Your task to perform on an android device: Open Google Maps and go to "Timeline" Image 0: 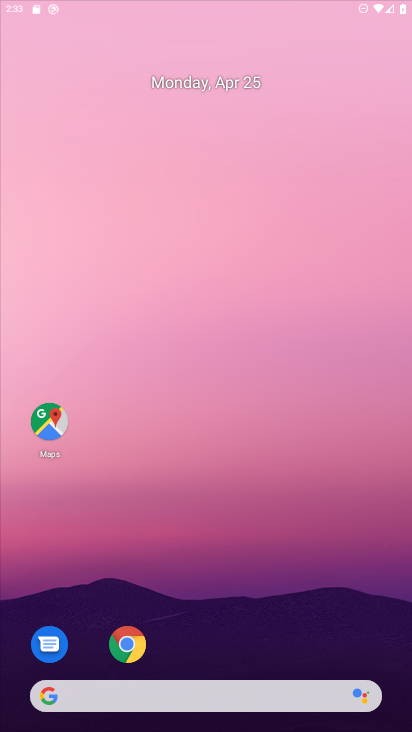
Step 0: drag from (277, 625) to (244, 223)
Your task to perform on an android device: Open Google Maps and go to "Timeline" Image 1: 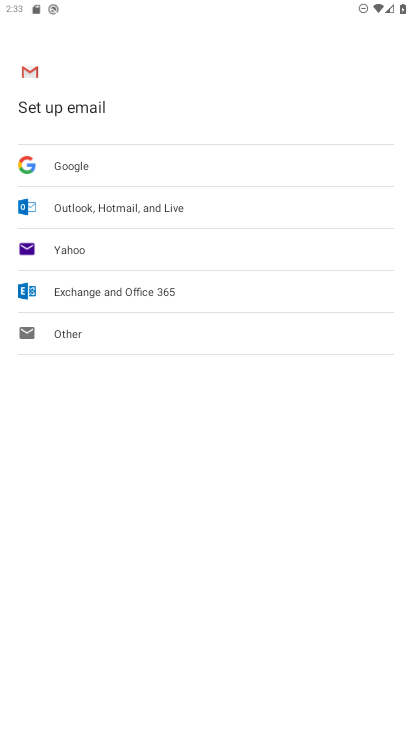
Step 1: press home button
Your task to perform on an android device: Open Google Maps and go to "Timeline" Image 2: 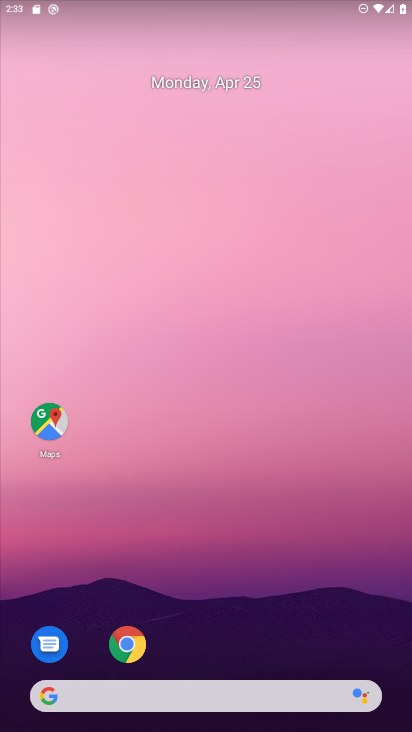
Step 2: drag from (257, 629) to (199, 409)
Your task to perform on an android device: Open Google Maps and go to "Timeline" Image 3: 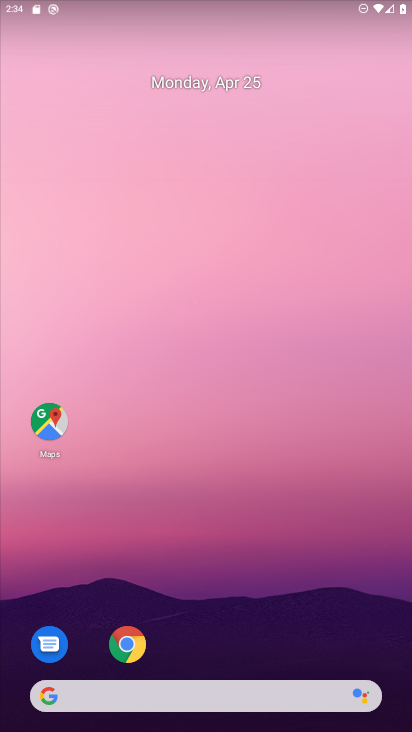
Step 3: drag from (225, 671) to (154, 373)
Your task to perform on an android device: Open Google Maps and go to "Timeline" Image 4: 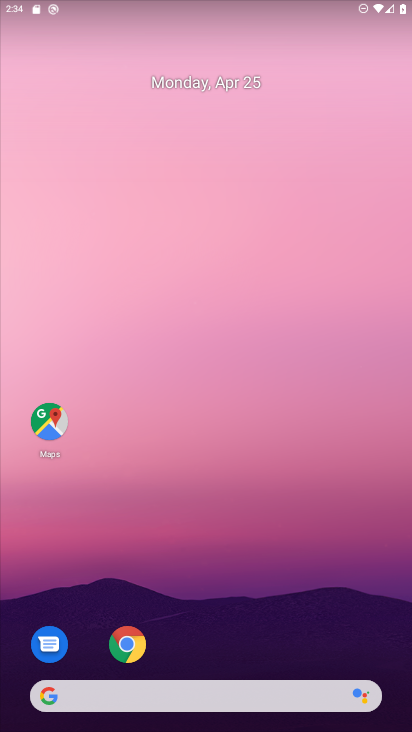
Step 4: click (56, 427)
Your task to perform on an android device: Open Google Maps and go to "Timeline" Image 5: 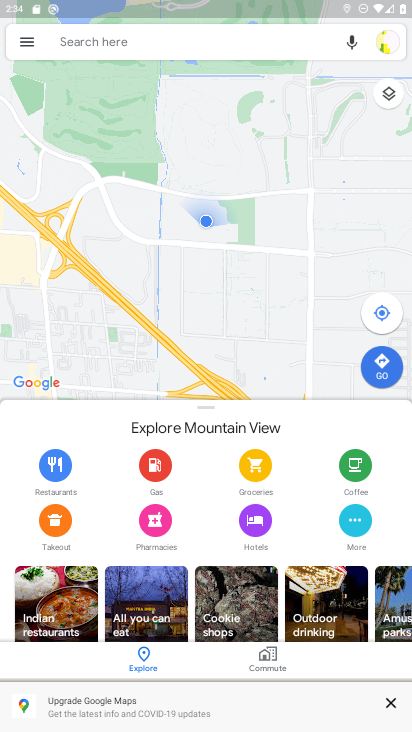
Step 5: click (28, 39)
Your task to perform on an android device: Open Google Maps and go to "Timeline" Image 6: 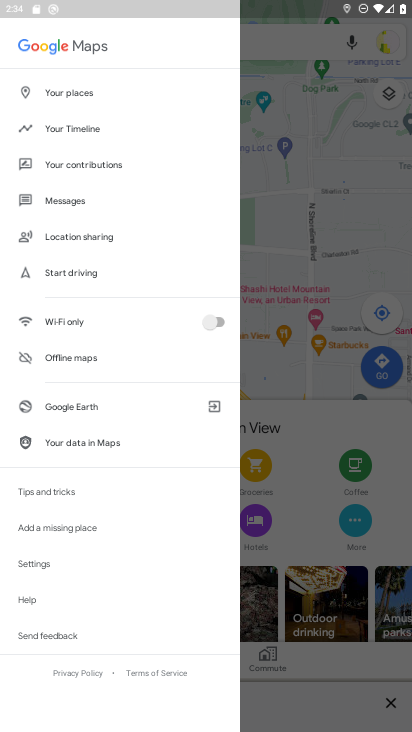
Step 6: click (110, 136)
Your task to perform on an android device: Open Google Maps and go to "Timeline" Image 7: 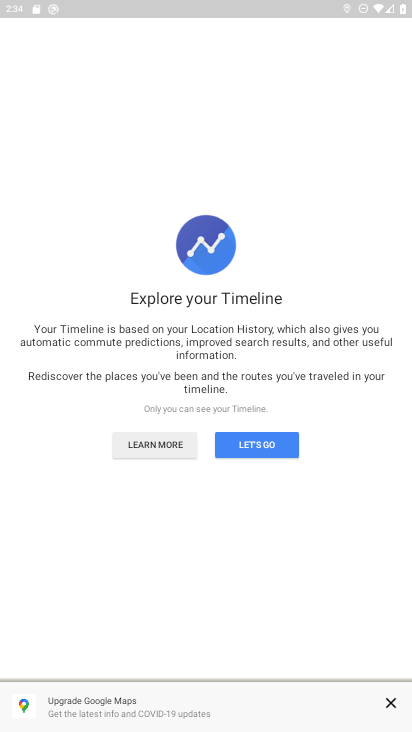
Step 7: click (278, 447)
Your task to perform on an android device: Open Google Maps and go to "Timeline" Image 8: 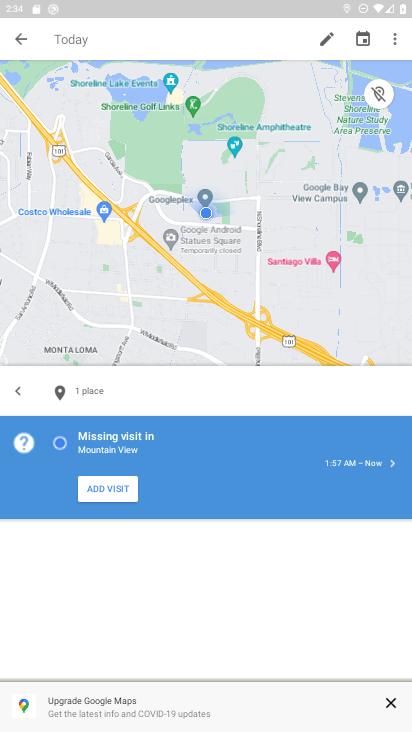
Step 8: task complete